Your task to perform on an android device: Go to location settings Image 0: 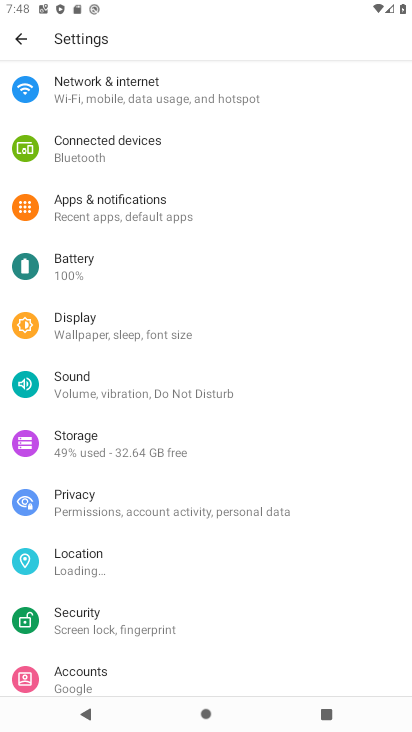
Step 0: click (83, 576)
Your task to perform on an android device: Go to location settings Image 1: 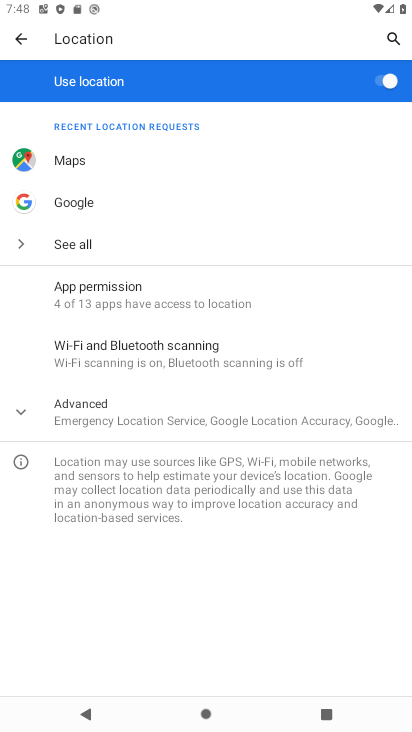
Step 1: click (147, 419)
Your task to perform on an android device: Go to location settings Image 2: 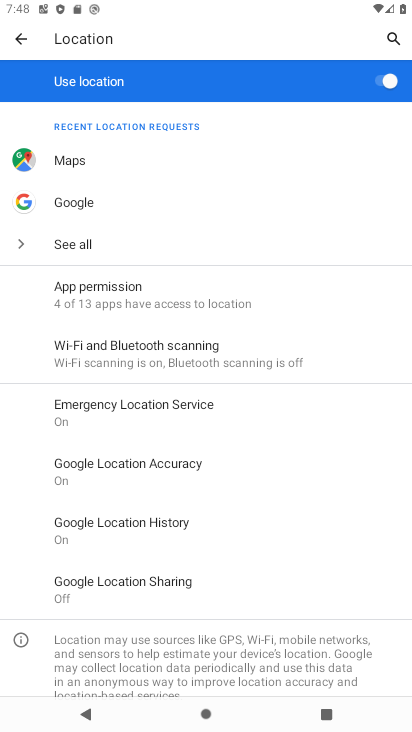
Step 2: task complete